Your task to perform on an android device: When is my next meeting? Image 0: 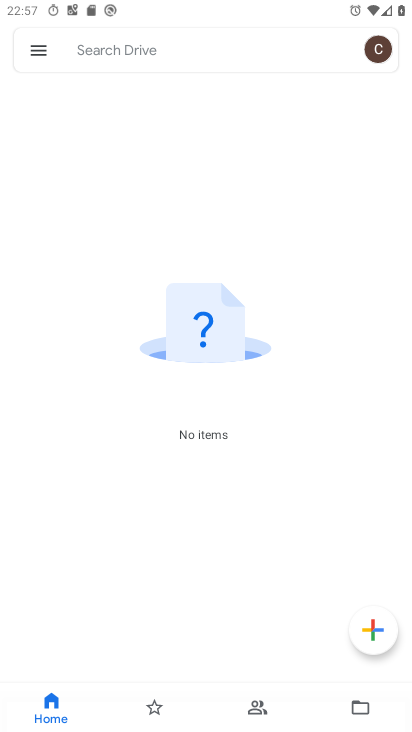
Step 0: press home button
Your task to perform on an android device: When is my next meeting? Image 1: 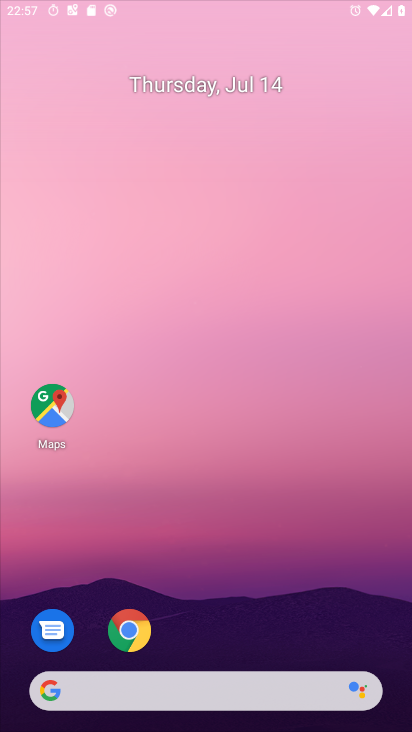
Step 1: drag from (225, 553) to (314, 10)
Your task to perform on an android device: When is my next meeting? Image 2: 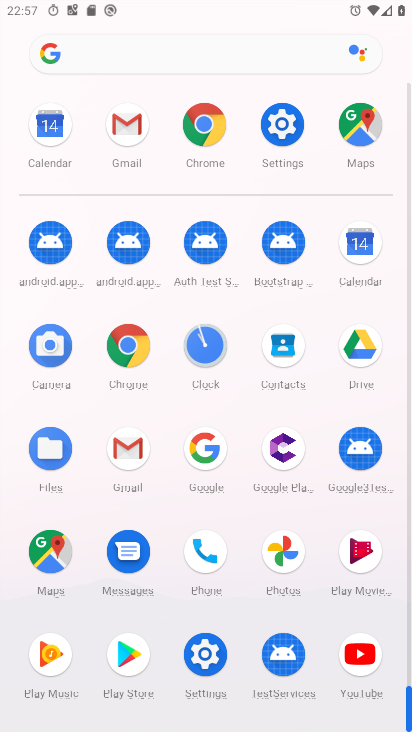
Step 2: click (365, 244)
Your task to perform on an android device: When is my next meeting? Image 3: 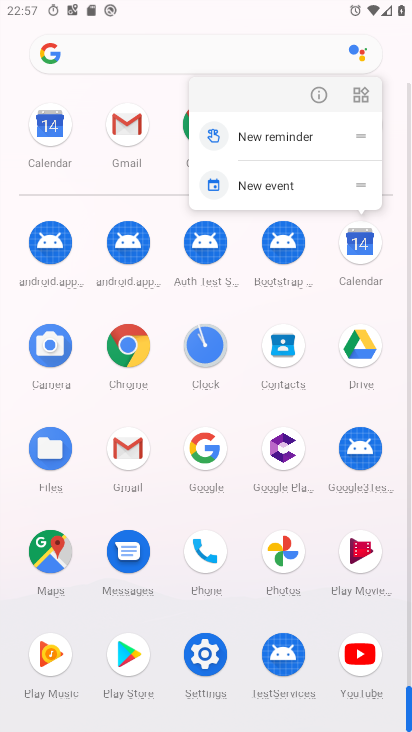
Step 3: click (322, 92)
Your task to perform on an android device: When is my next meeting? Image 4: 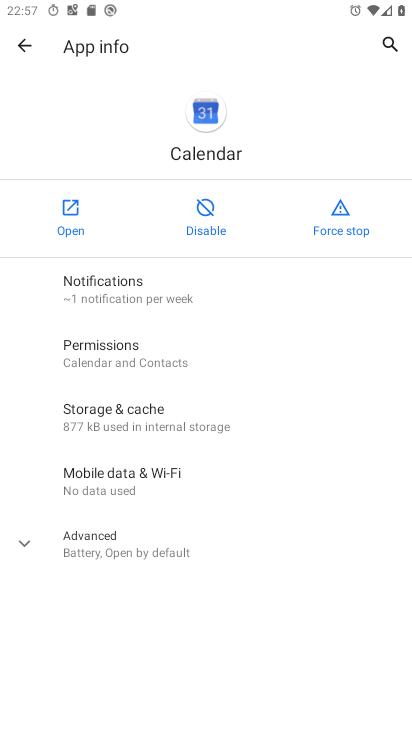
Step 4: click (67, 206)
Your task to perform on an android device: When is my next meeting? Image 5: 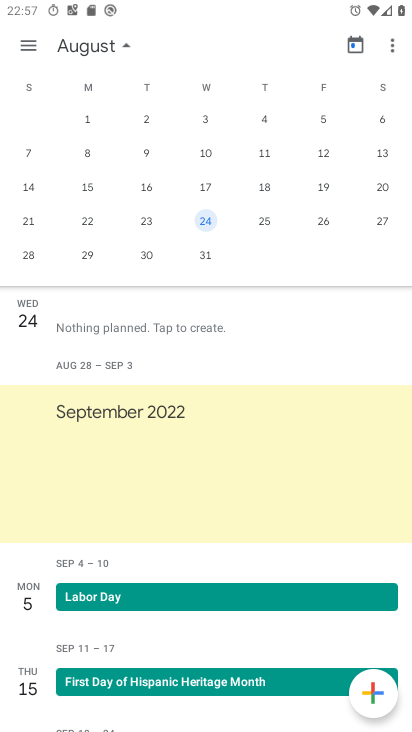
Step 5: click (352, 40)
Your task to perform on an android device: When is my next meeting? Image 6: 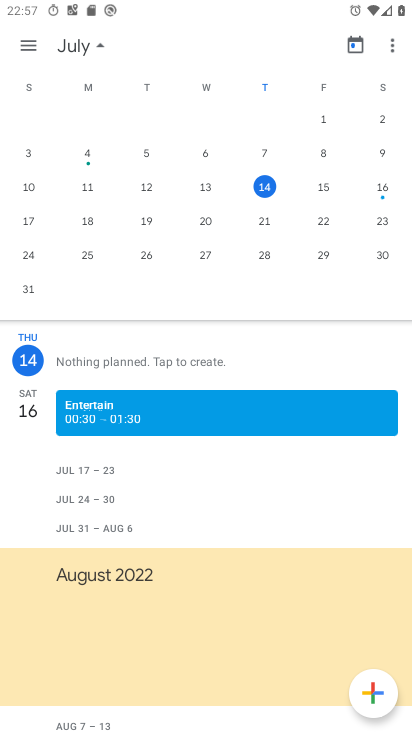
Step 6: task complete